Your task to perform on an android device: Show me recent news Image 0: 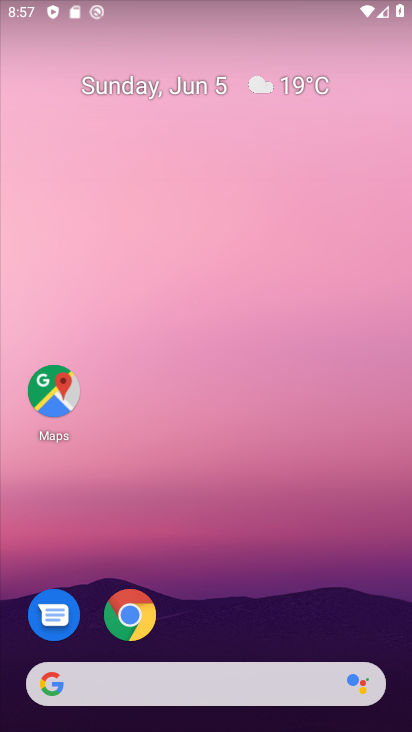
Step 0: drag from (7, 490) to (379, 162)
Your task to perform on an android device: Show me recent news Image 1: 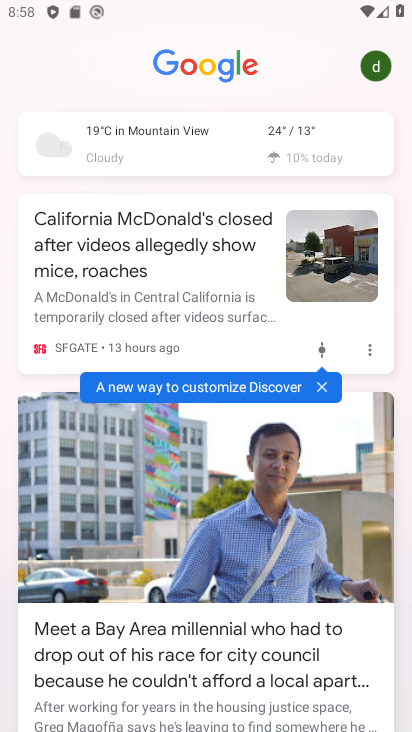
Step 1: task complete